Your task to perform on an android device: change keyboard looks Image 0: 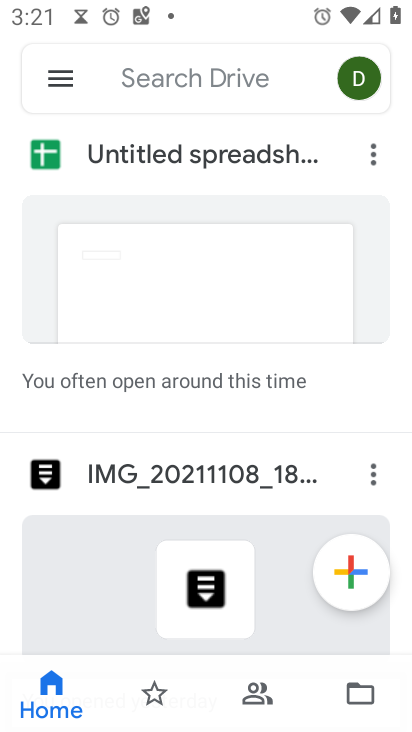
Step 0: press back button
Your task to perform on an android device: change keyboard looks Image 1: 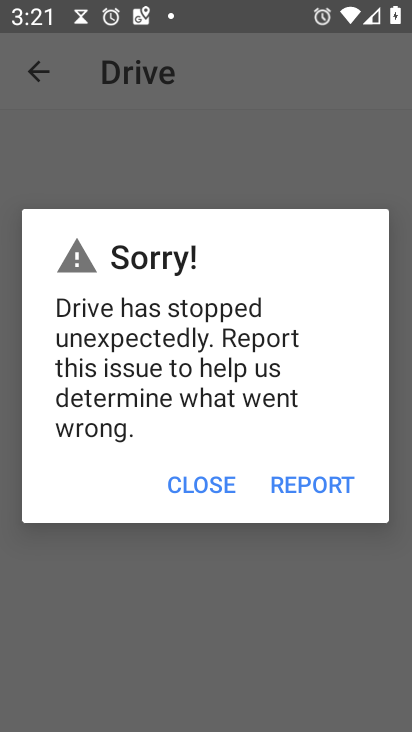
Step 1: press home button
Your task to perform on an android device: change keyboard looks Image 2: 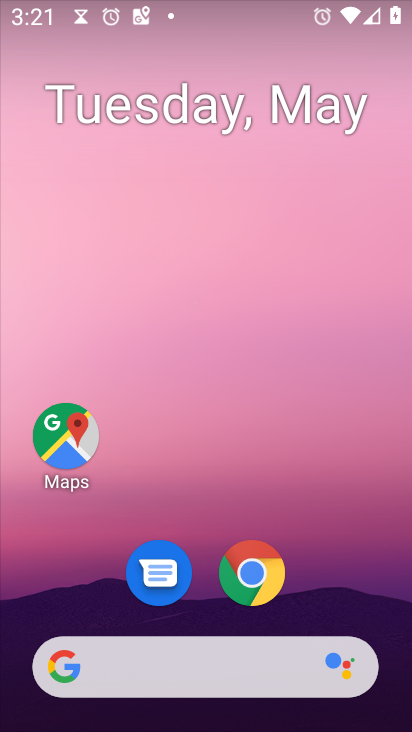
Step 2: drag from (325, 427) to (272, 30)
Your task to perform on an android device: change keyboard looks Image 3: 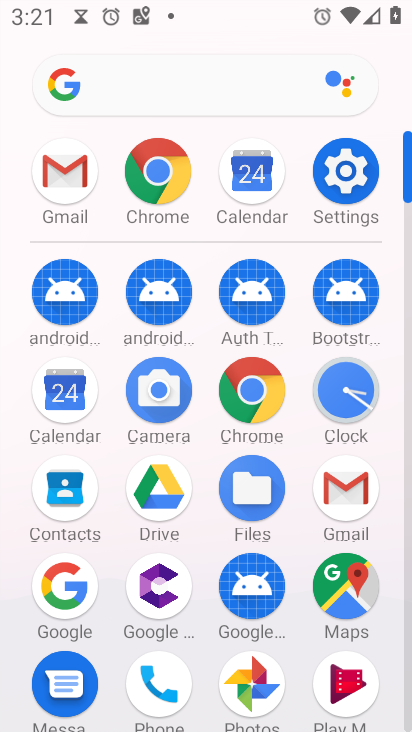
Step 3: click (352, 168)
Your task to perform on an android device: change keyboard looks Image 4: 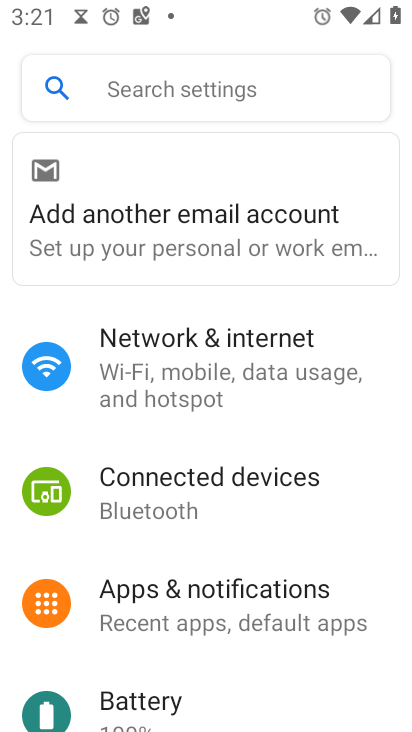
Step 4: drag from (259, 581) to (268, 172)
Your task to perform on an android device: change keyboard looks Image 5: 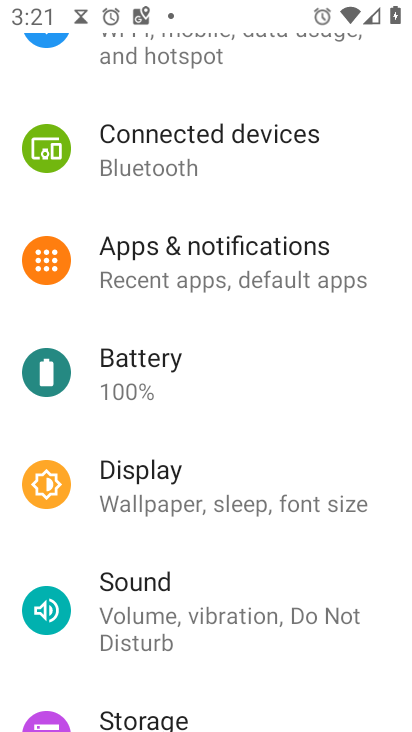
Step 5: drag from (296, 578) to (311, 159)
Your task to perform on an android device: change keyboard looks Image 6: 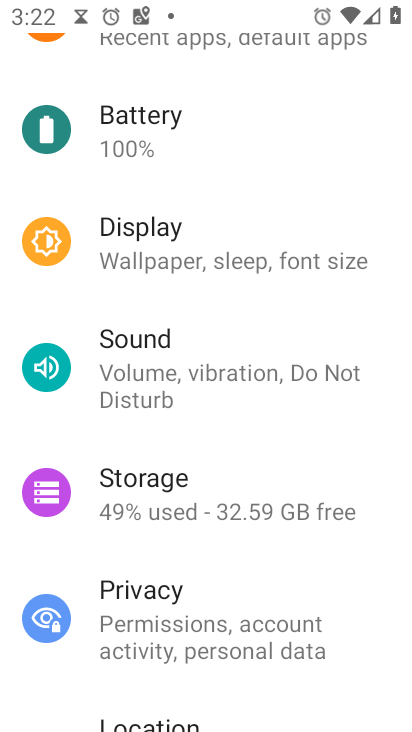
Step 6: drag from (239, 529) to (257, 96)
Your task to perform on an android device: change keyboard looks Image 7: 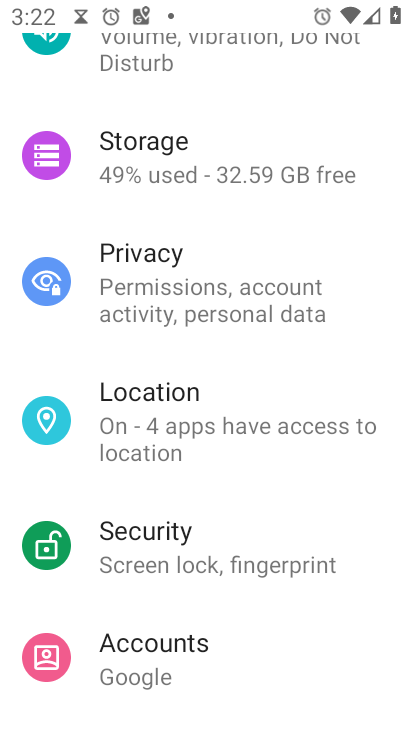
Step 7: drag from (292, 573) to (268, 133)
Your task to perform on an android device: change keyboard looks Image 8: 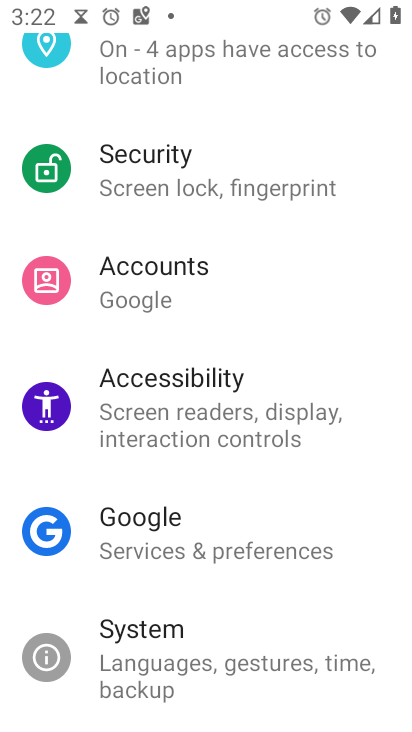
Step 8: drag from (221, 541) to (271, 136)
Your task to perform on an android device: change keyboard looks Image 9: 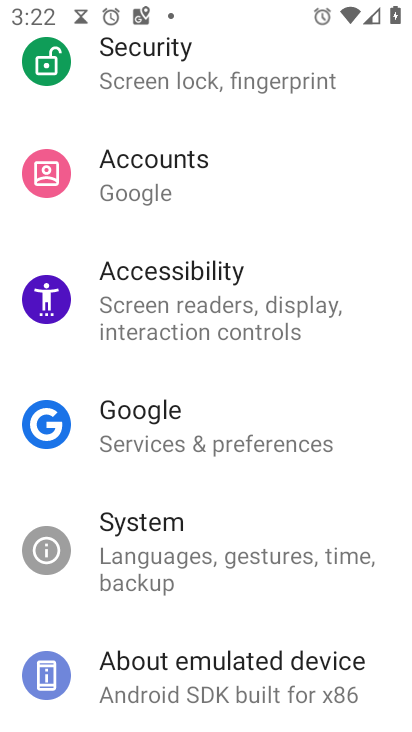
Step 9: drag from (276, 506) to (312, 195)
Your task to perform on an android device: change keyboard looks Image 10: 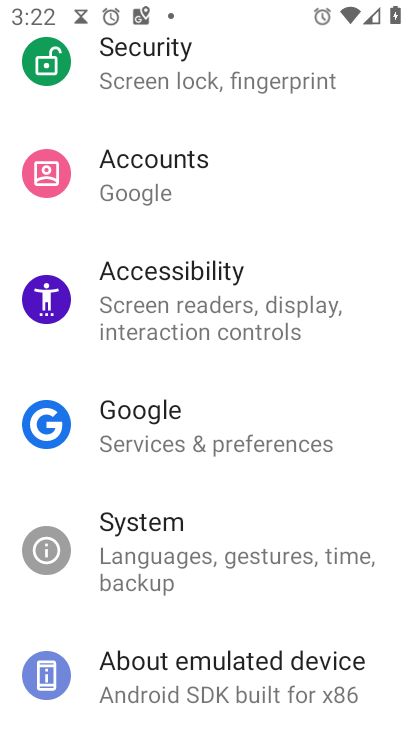
Step 10: click (220, 529)
Your task to perform on an android device: change keyboard looks Image 11: 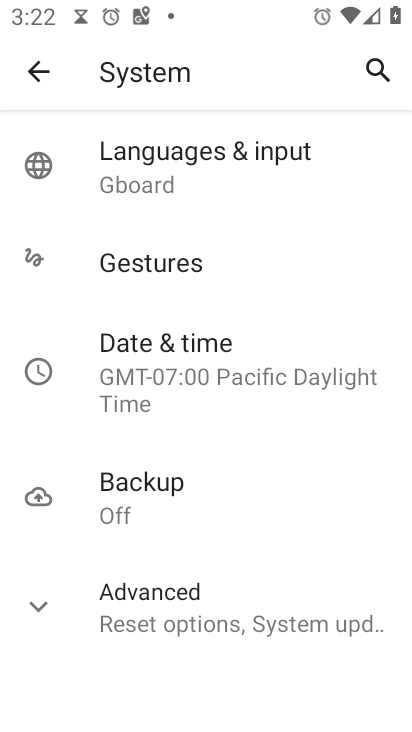
Step 11: click (197, 152)
Your task to perform on an android device: change keyboard looks Image 12: 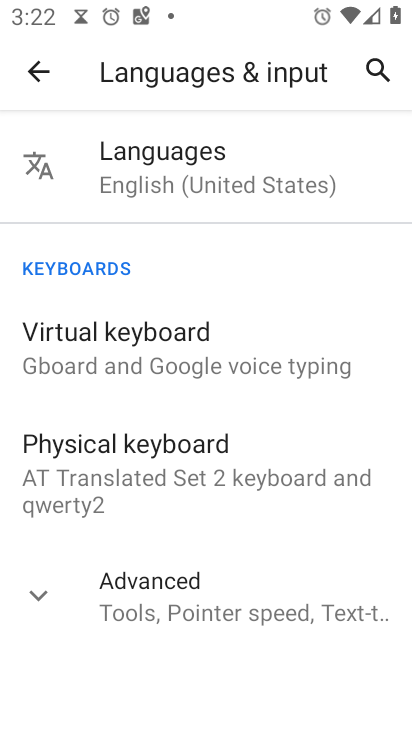
Step 12: click (213, 333)
Your task to perform on an android device: change keyboard looks Image 13: 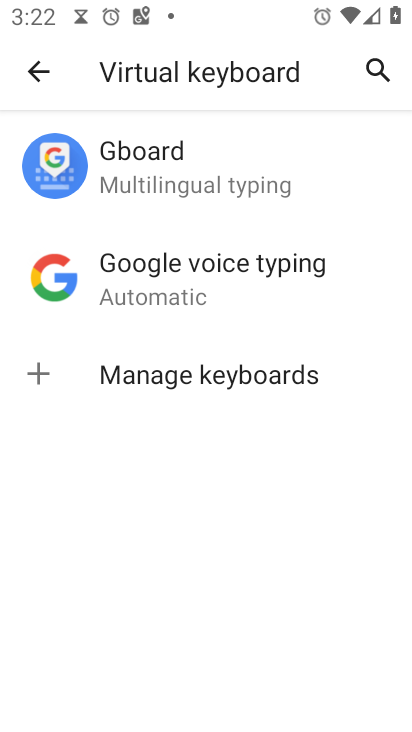
Step 13: click (213, 197)
Your task to perform on an android device: change keyboard looks Image 14: 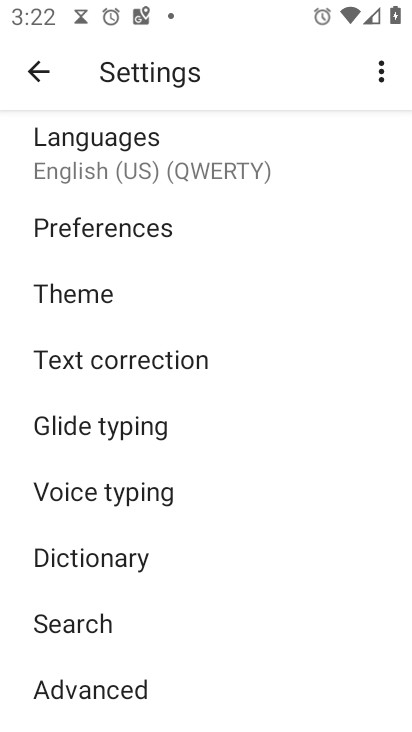
Step 14: click (115, 285)
Your task to perform on an android device: change keyboard looks Image 15: 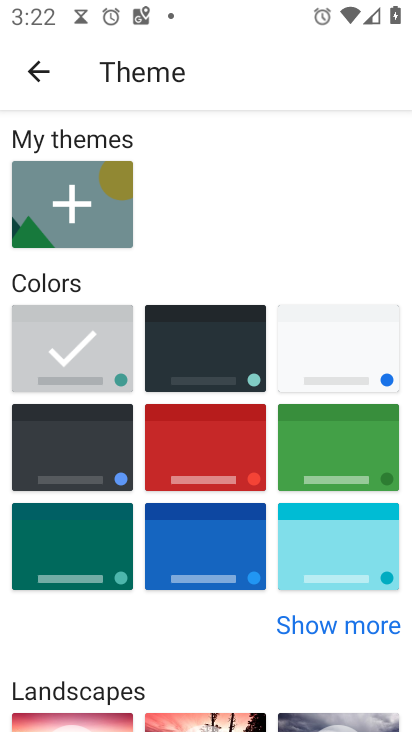
Step 15: click (173, 322)
Your task to perform on an android device: change keyboard looks Image 16: 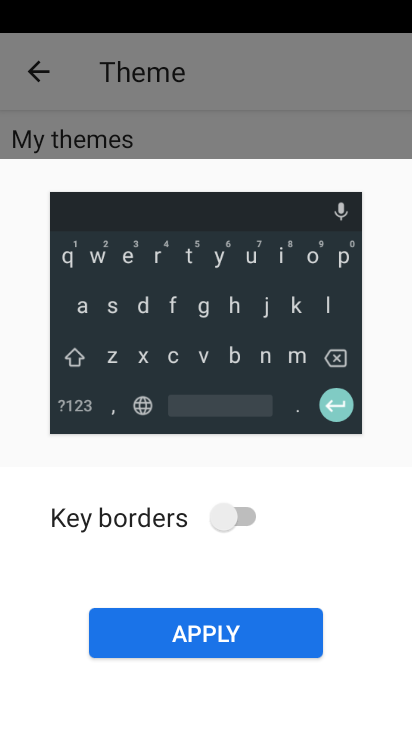
Step 16: click (159, 621)
Your task to perform on an android device: change keyboard looks Image 17: 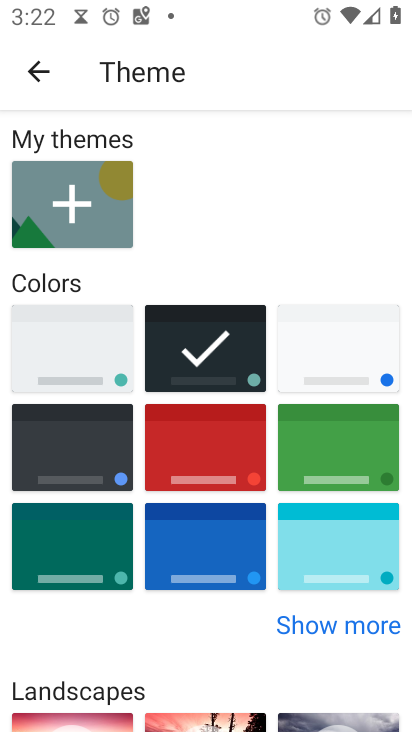
Step 17: task complete